Your task to perform on an android device: Set the phone to "Do not disturb". Image 0: 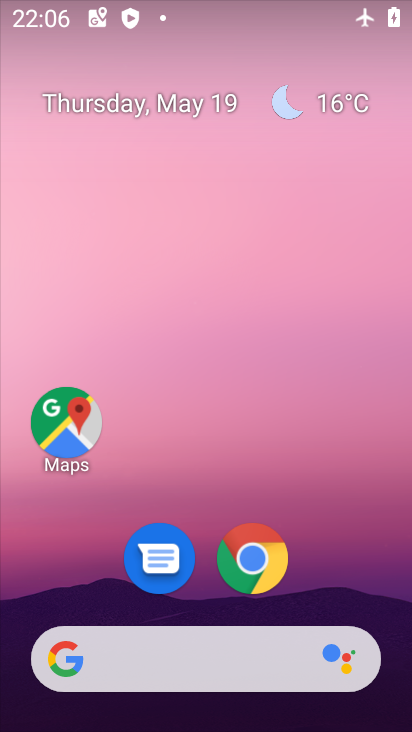
Step 0: drag from (210, 721) to (190, 109)
Your task to perform on an android device: Set the phone to "Do not disturb". Image 1: 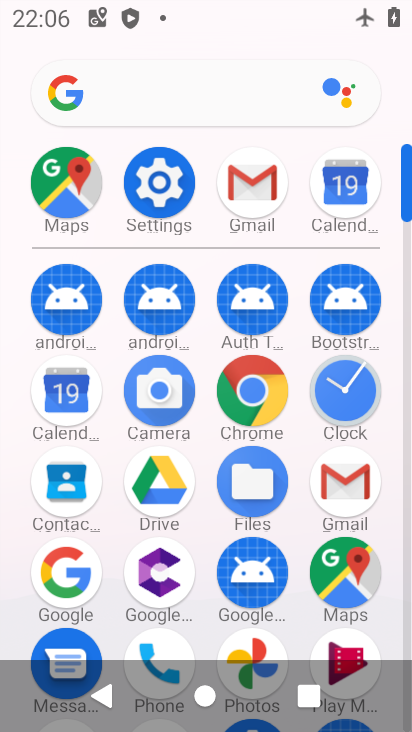
Step 1: click (173, 176)
Your task to perform on an android device: Set the phone to "Do not disturb". Image 2: 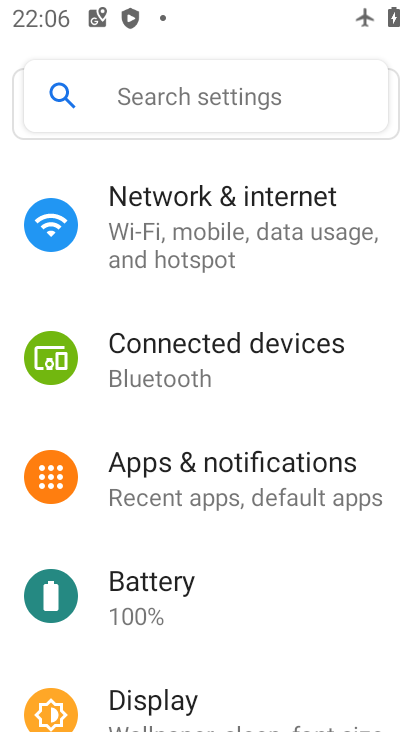
Step 2: drag from (196, 682) to (185, 295)
Your task to perform on an android device: Set the phone to "Do not disturb". Image 3: 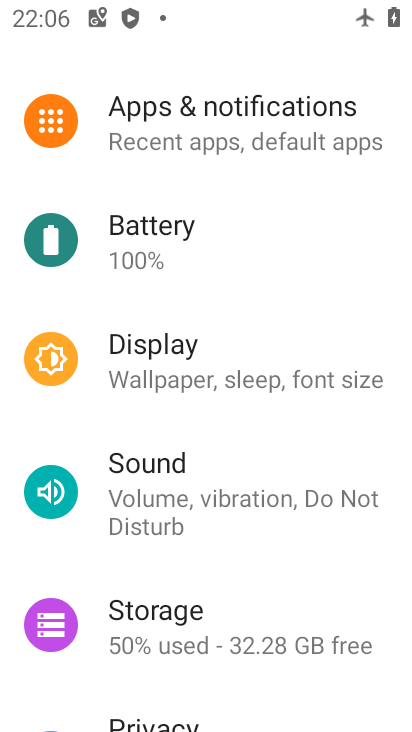
Step 3: click (216, 496)
Your task to perform on an android device: Set the phone to "Do not disturb". Image 4: 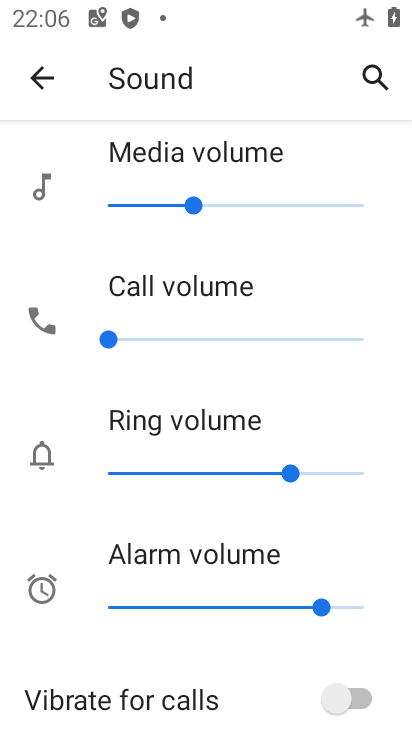
Step 4: drag from (220, 674) to (219, 226)
Your task to perform on an android device: Set the phone to "Do not disturb". Image 5: 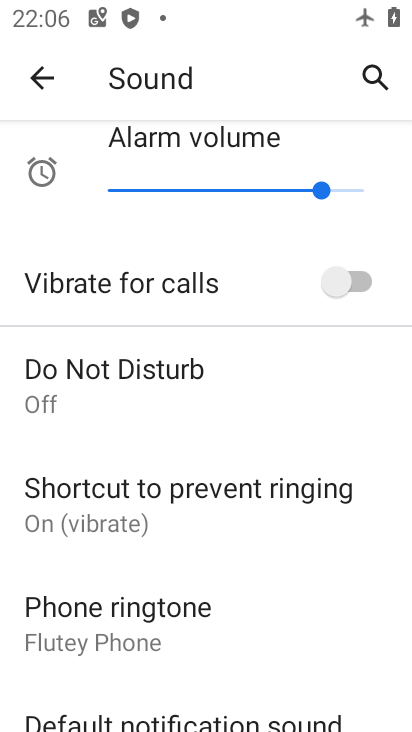
Step 5: click (102, 369)
Your task to perform on an android device: Set the phone to "Do not disturb". Image 6: 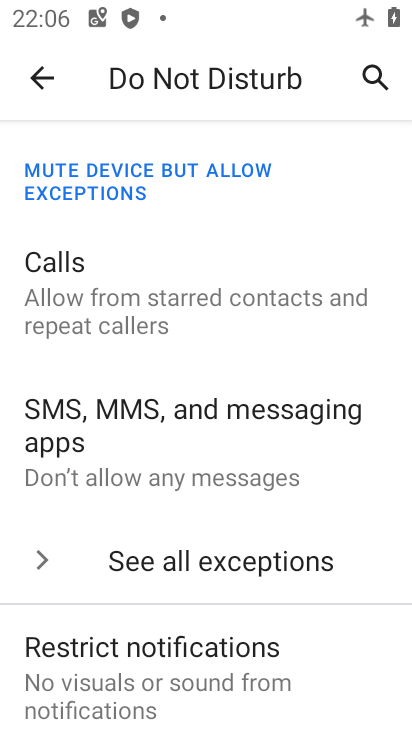
Step 6: drag from (147, 648) to (153, 205)
Your task to perform on an android device: Set the phone to "Do not disturb". Image 7: 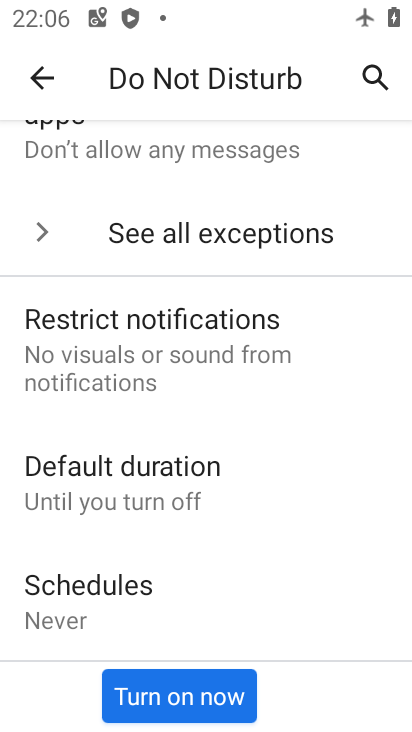
Step 7: click (199, 692)
Your task to perform on an android device: Set the phone to "Do not disturb". Image 8: 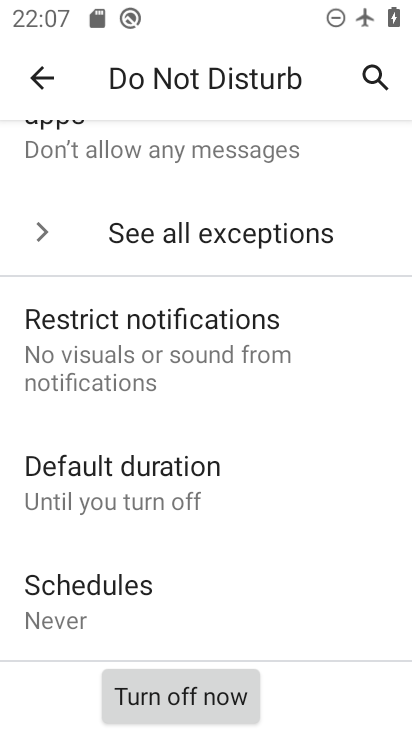
Step 8: task complete